Your task to perform on an android device: uninstall "Walmart Shopping & Grocery" Image 0: 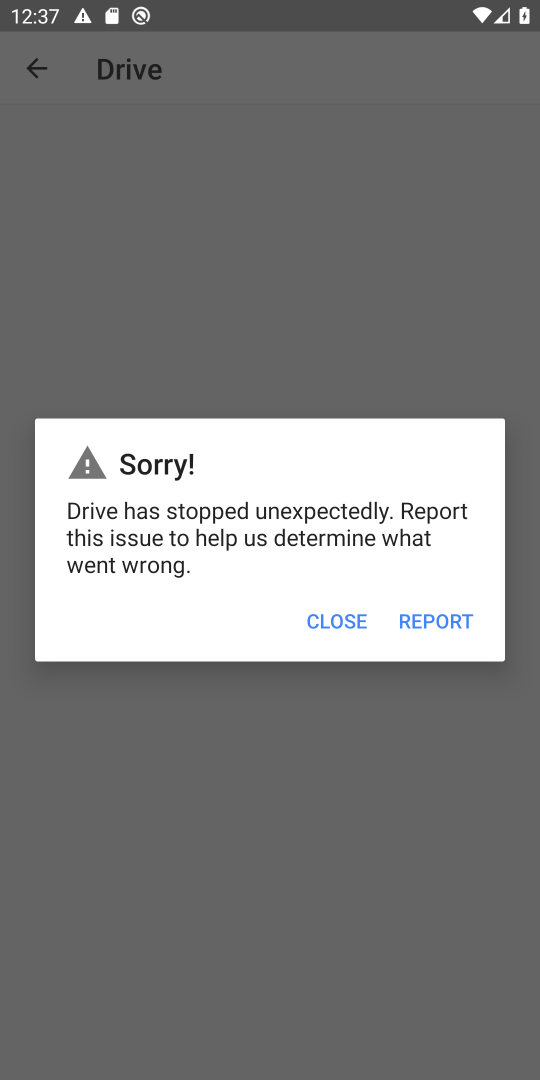
Step 0: press back button
Your task to perform on an android device: uninstall "Walmart Shopping & Grocery" Image 1: 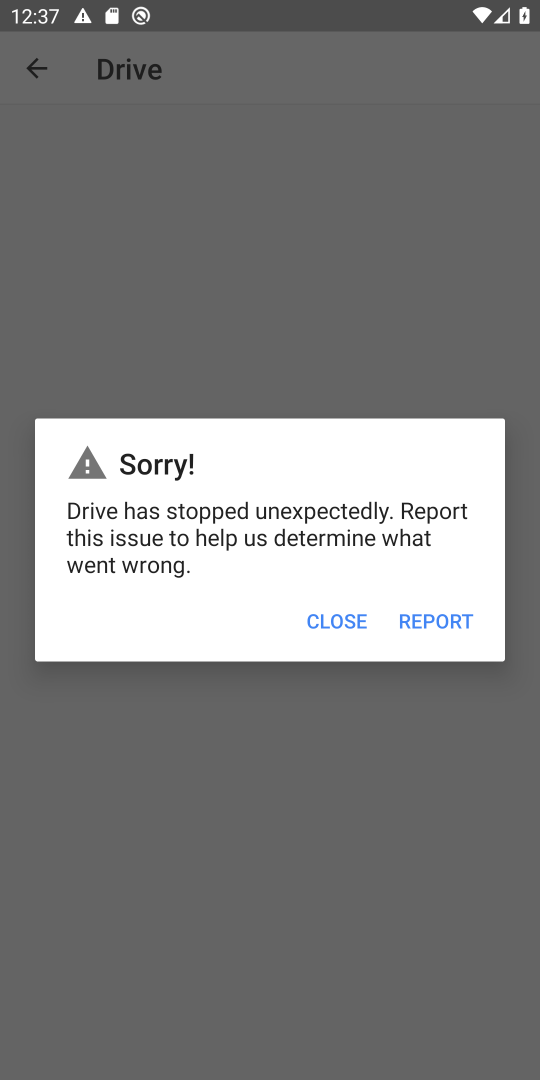
Step 1: click (334, 618)
Your task to perform on an android device: uninstall "Walmart Shopping & Grocery" Image 2: 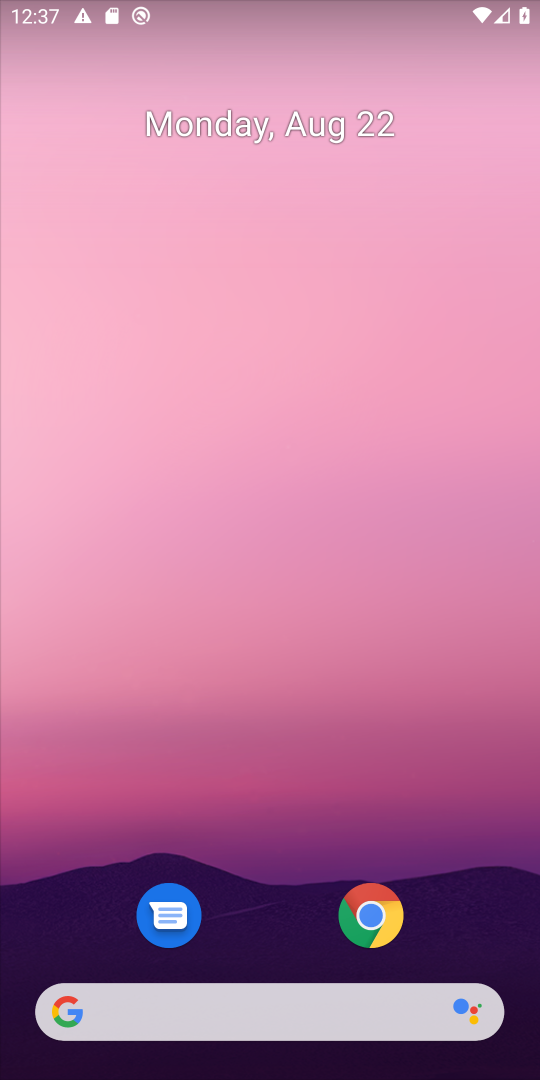
Step 2: drag from (282, 952) to (240, 11)
Your task to perform on an android device: uninstall "Walmart Shopping & Grocery" Image 3: 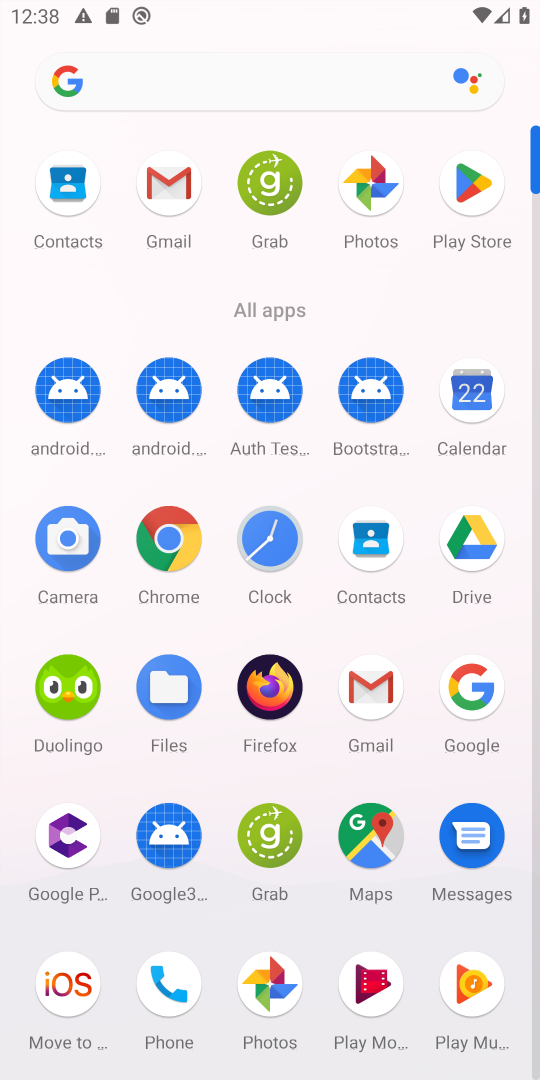
Step 3: drag from (198, 902) to (161, 93)
Your task to perform on an android device: uninstall "Walmart Shopping & Grocery" Image 4: 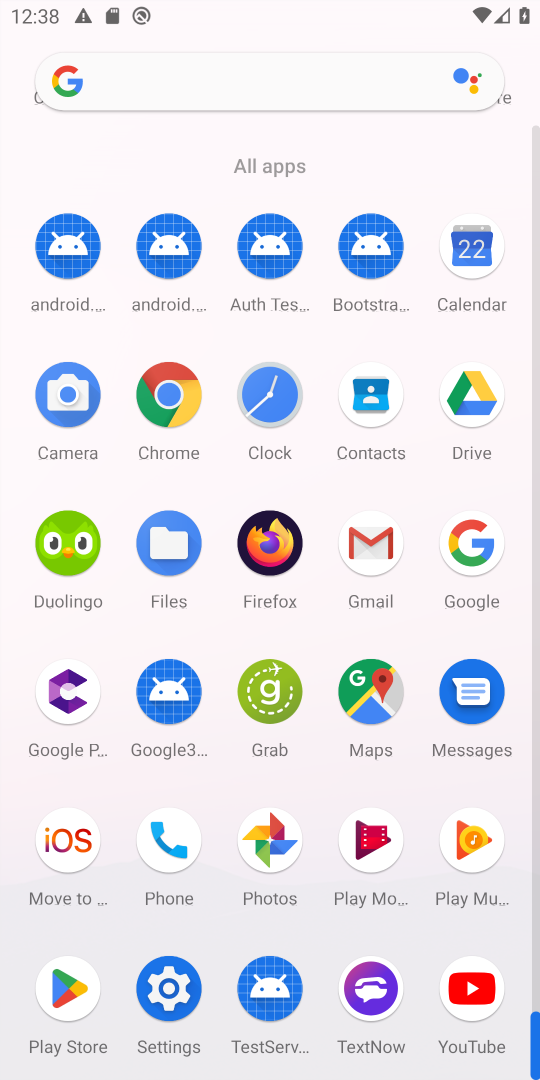
Step 4: click (40, 995)
Your task to perform on an android device: uninstall "Walmart Shopping & Grocery" Image 5: 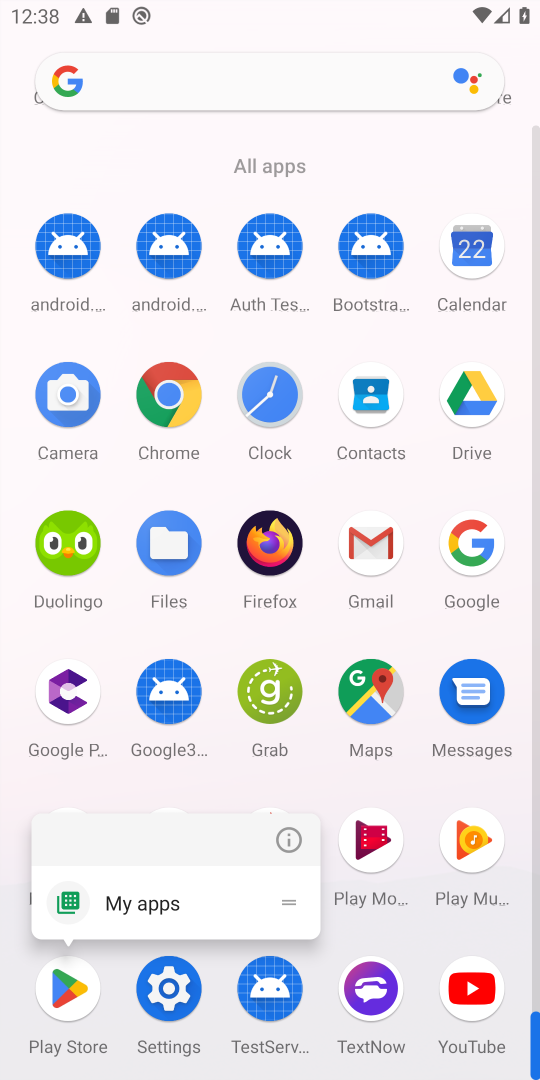
Step 5: click (84, 1003)
Your task to perform on an android device: uninstall "Walmart Shopping & Grocery" Image 6: 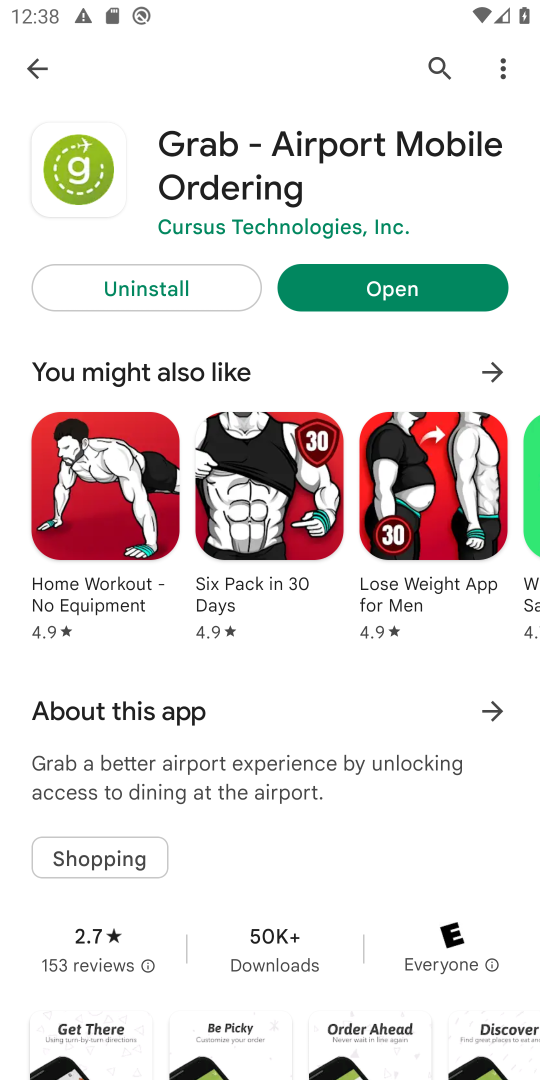
Step 6: click (28, 64)
Your task to perform on an android device: uninstall "Walmart Shopping & Grocery" Image 7: 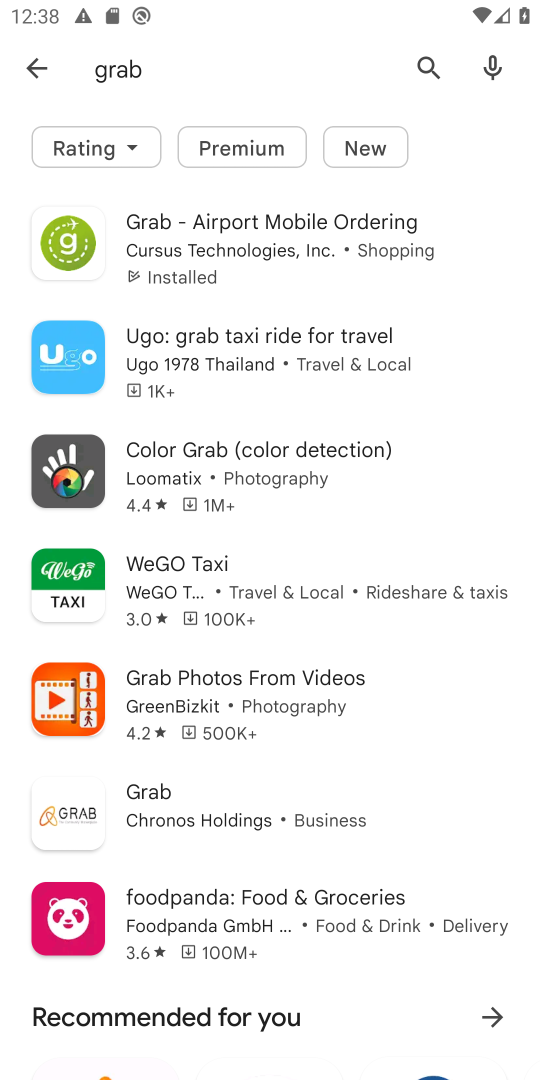
Step 7: click (46, 59)
Your task to perform on an android device: uninstall "Walmart Shopping & Grocery" Image 8: 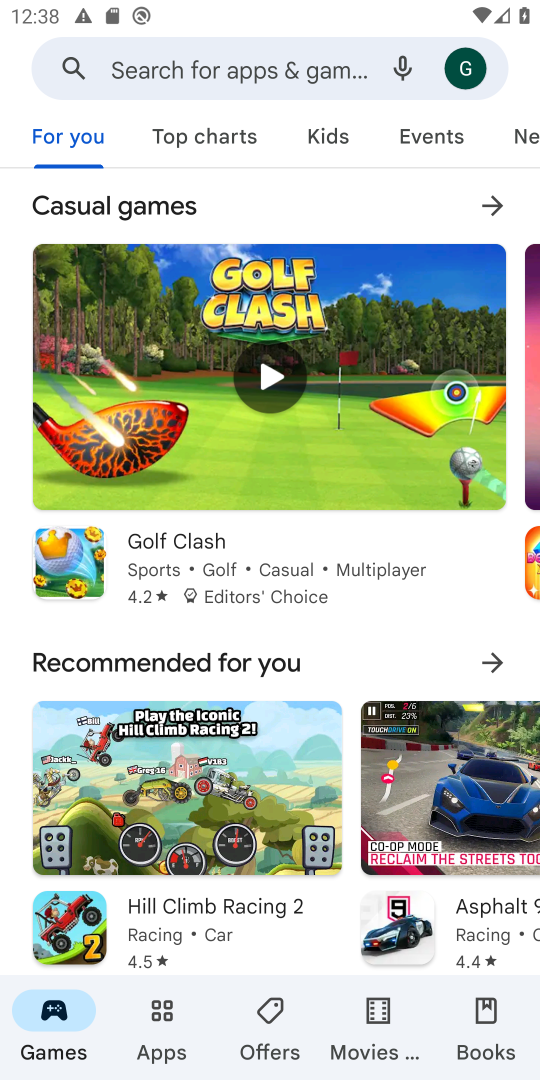
Step 8: click (271, 67)
Your task to perform on an android device: uninstall "Walmart Shopping & Grocery" Image 9: 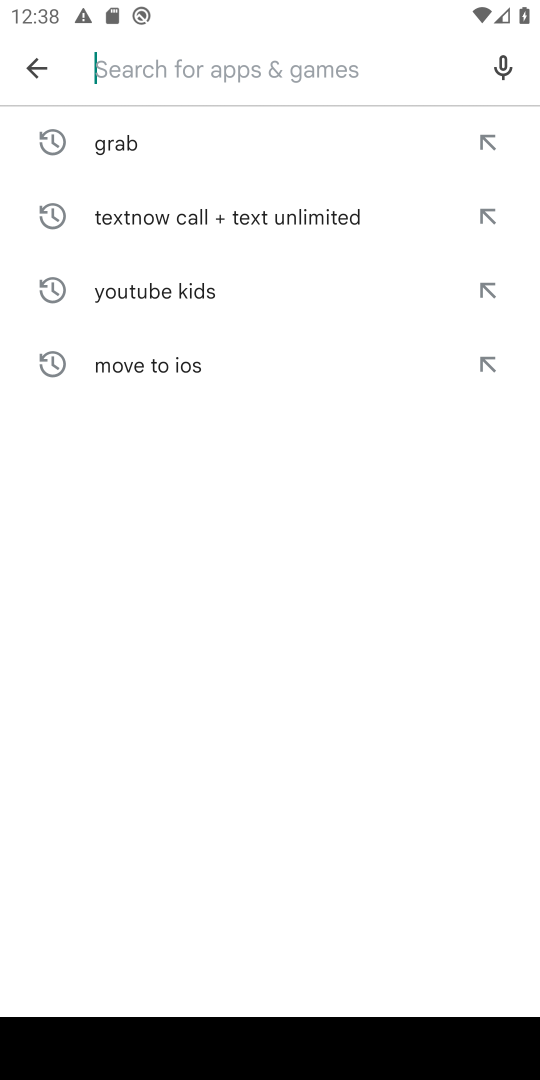
Step 9: type "Walmart Shopping & Grocery"
Your task to perform on an android device: uninstall "Walmart Shopping & Grocery" Image 10: 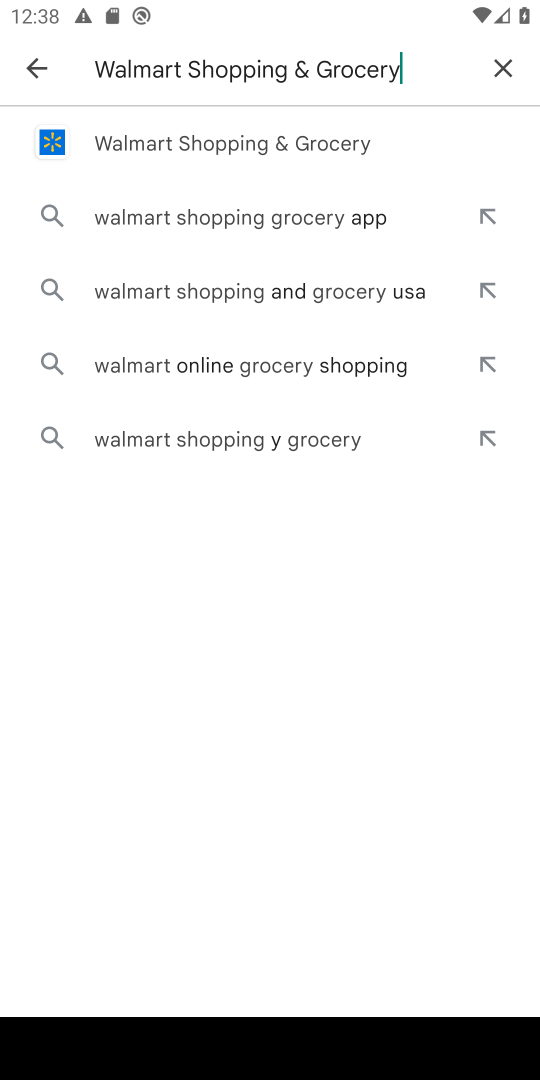
Step 10: click (170, 134)
Your task to perform on an android device: uninstall "Walmart Shopping & Grocery" Image 11: 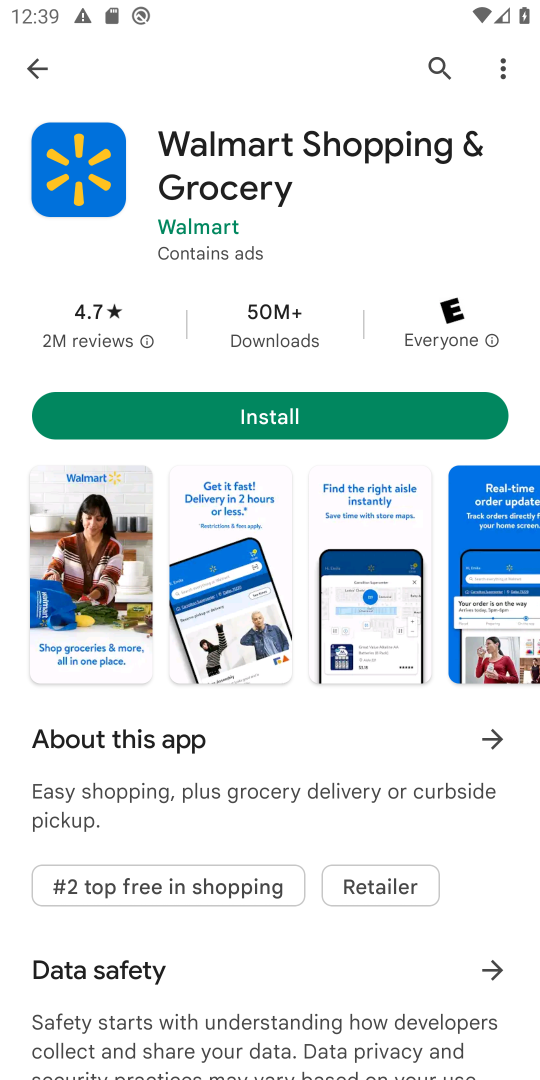
Step 11: task complete